Your task to perform on an android device: Is it going to rain today? Image 0: 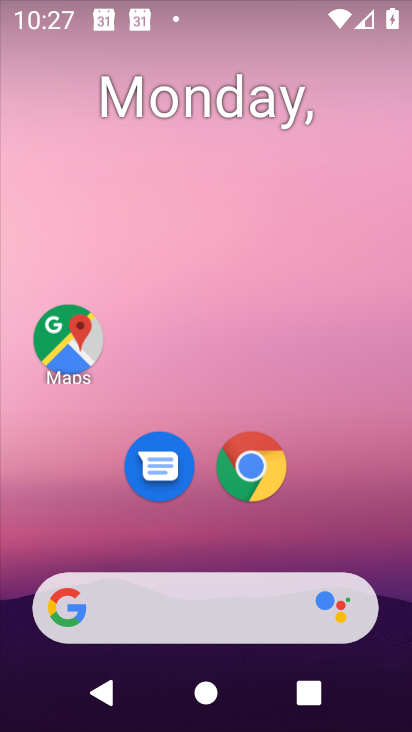
Step 0: drag from (371, 374) to (408, 339)
Your task to perform on an android device: Is it going to rain today? Image 1: 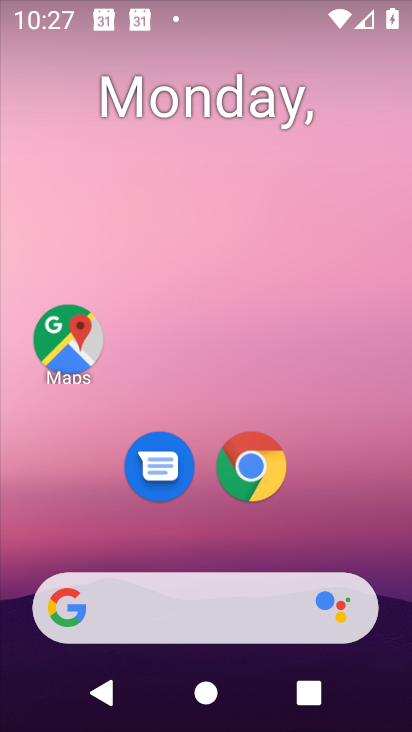
Step 1: drag from (4, 191) to (409, 408)
Your task to perform on an android device: Is it going to rain today? Image 2: 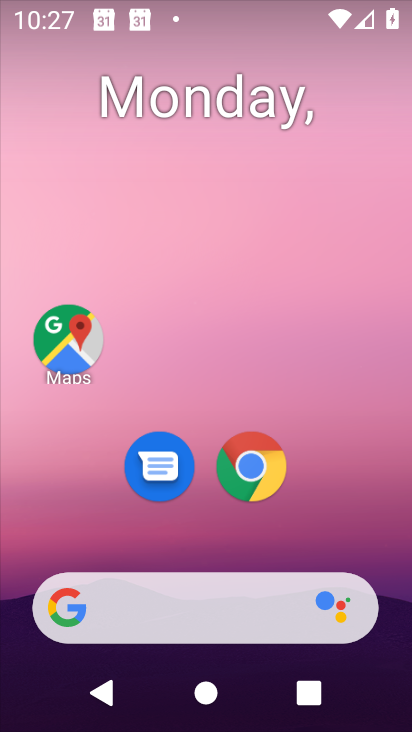
Step 2: drag from (7, 209) to (367, 448)
Your task to perform on an android device: Is it going to rain today? Image 3: 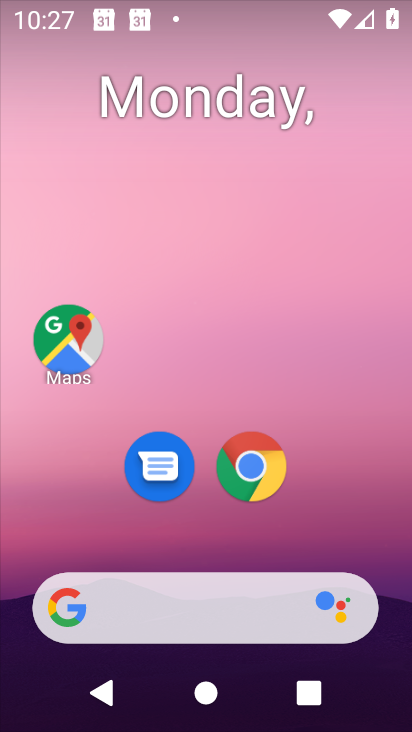
Step 3: drag from (71, 155) to (307, 389)
Your task to perform on an android device: Is it going to rain today? Image 4: 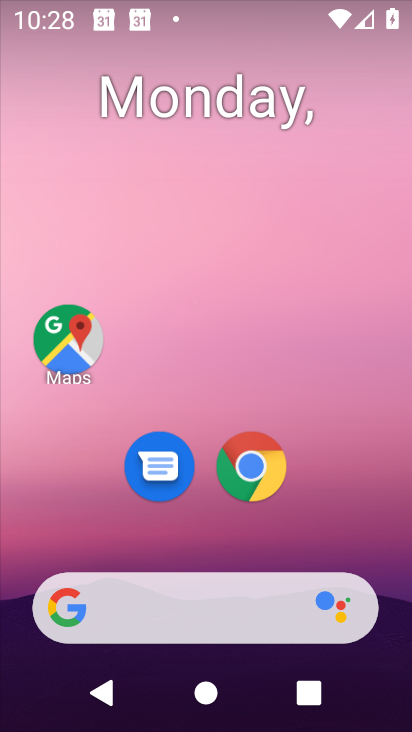
Step 4: drag from (3, 192) to (233, 357)
Your task to perform on an android device: Is it going to rain today? Image 5: 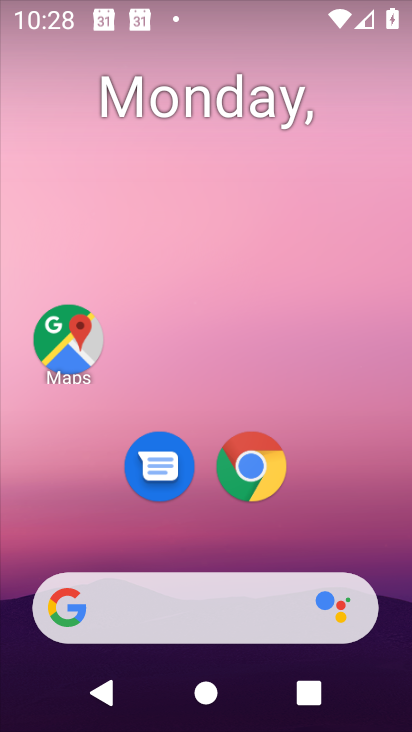
Step 5: drag from (51, 222) to (289, 327)
Your task to perform on an android device: Is it going to rain today? Image 6: 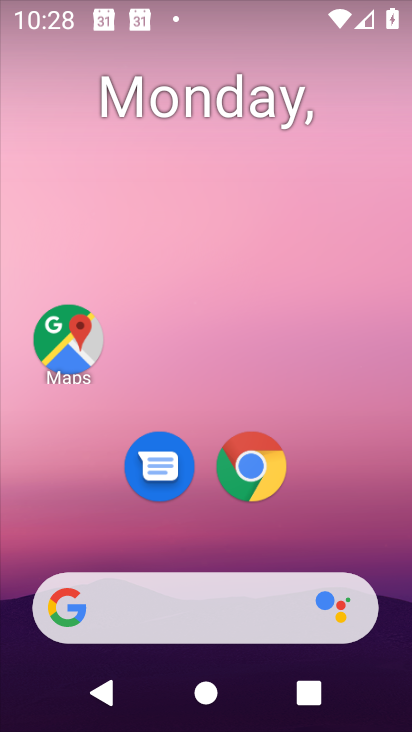
Step 6: drag from (13, 188) to (311, 357)
Your task to perform on an android device: Is it going to rain today? Image 7: 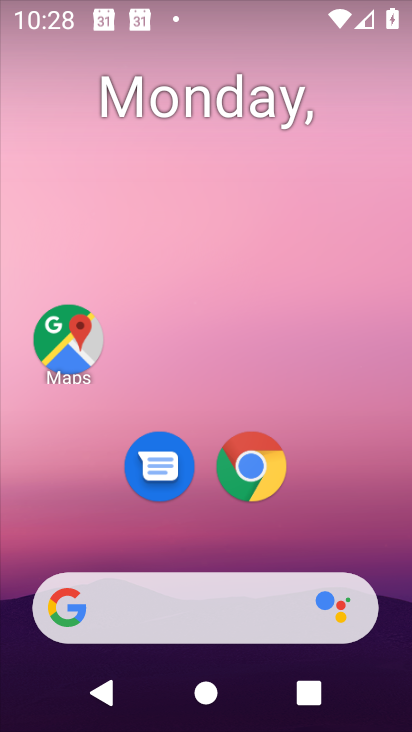
Step 7: drag from (65, 212) to (299, 389)
Your task to perform on an android device: Is it going to rain today? Image 8: 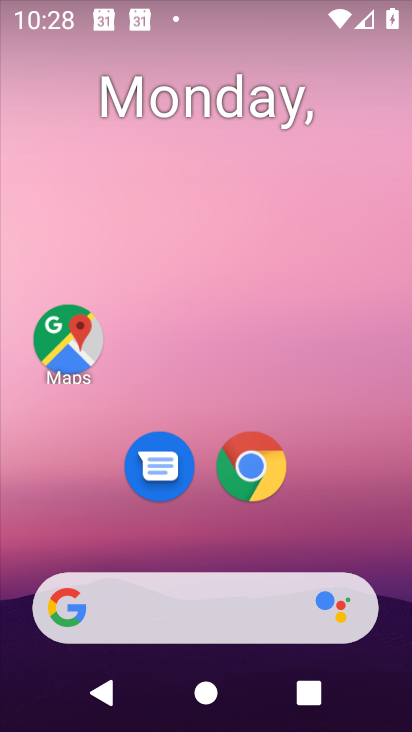
Step 8: drag from (4, 176) to (372, 414)
Your task to perform on an android device: Is it going to rain today? Image 9: 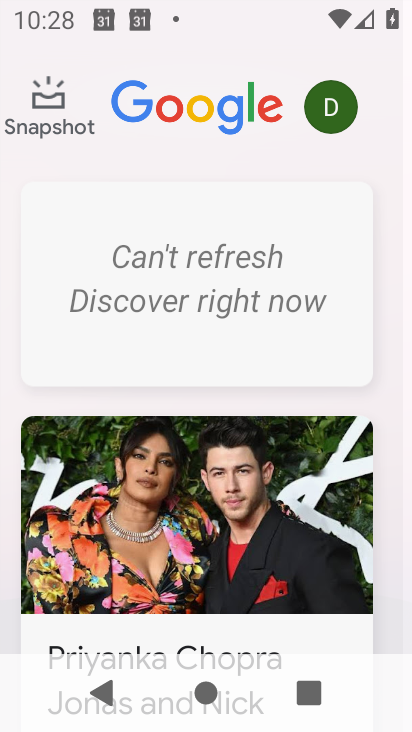
Step 9: drag from (25, 205) to (398, 450)
Your task to perform on an android device: Is it going to rain today? Image 10: 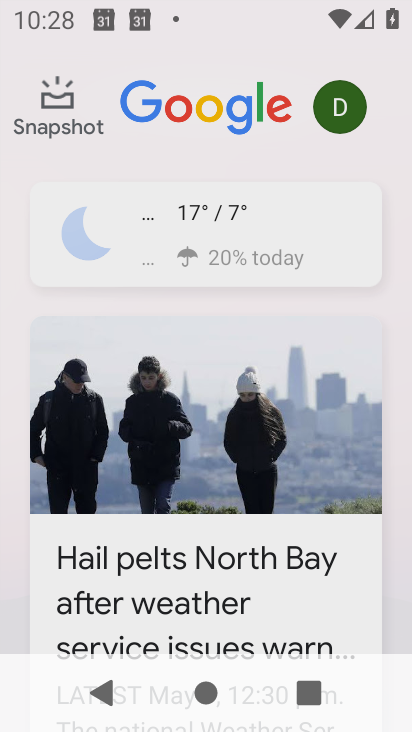
Step 10: click (213, 223)
Your task to perform on an android device: Is it going to rain today? Image 11: 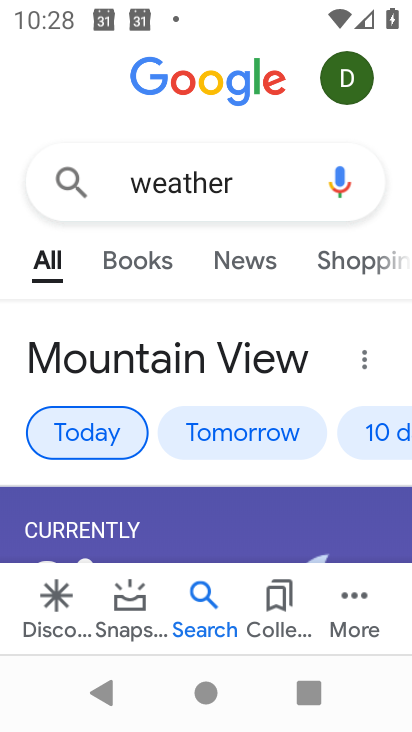
Step 11: click (225, 435)
Your task to perform on an android device: Is it going to rain today? Image 12: 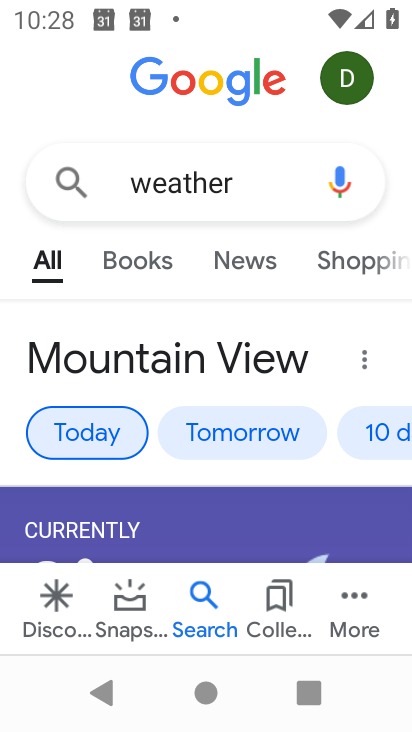
Step 12: click (225, 435)
Your task to perform on an android device: Is it going to rain today? Image 13: 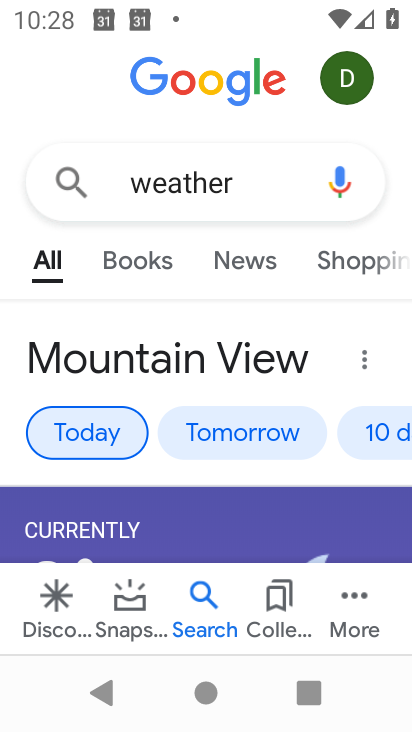
Step 13: click (225, 435)
Your task to perform on an android device: Is it going to rain today? Image 14: 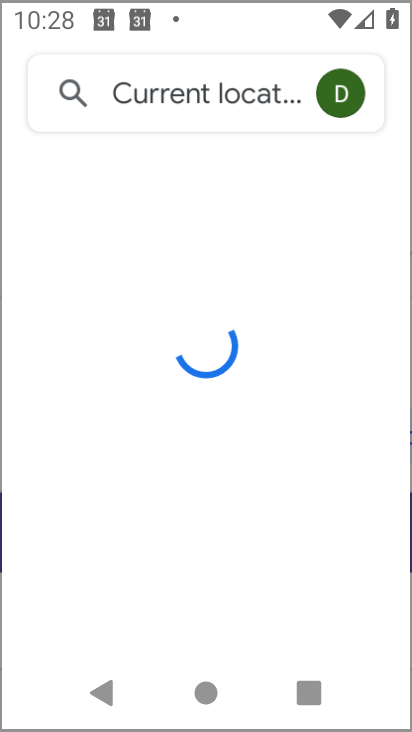
Step 14: click (226, 434)
Your task to perform on an android device: Is it going to rain today? Image 15: 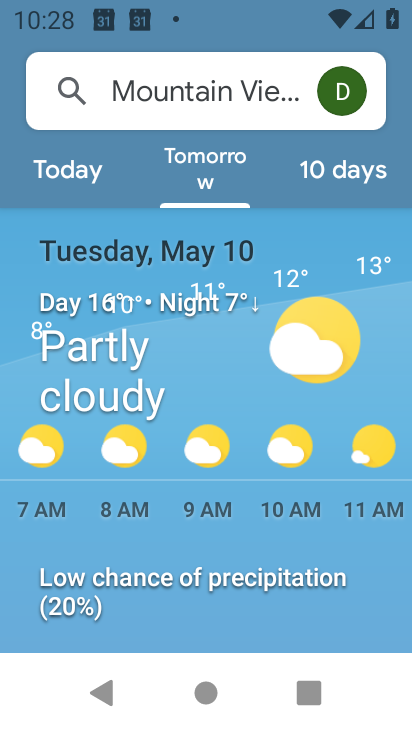
Step 15: click (62, 169)
Your task to perform on an android device: Is it going to rain today? Image 16: 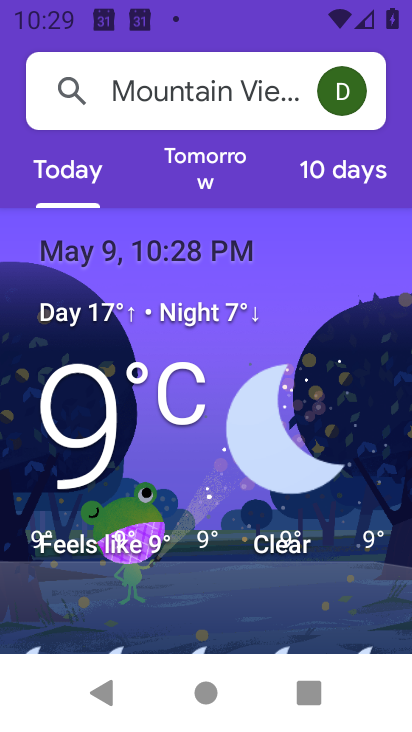
Step 16: task complete